Your task to perform on an android device: Open battery settings Image 0: 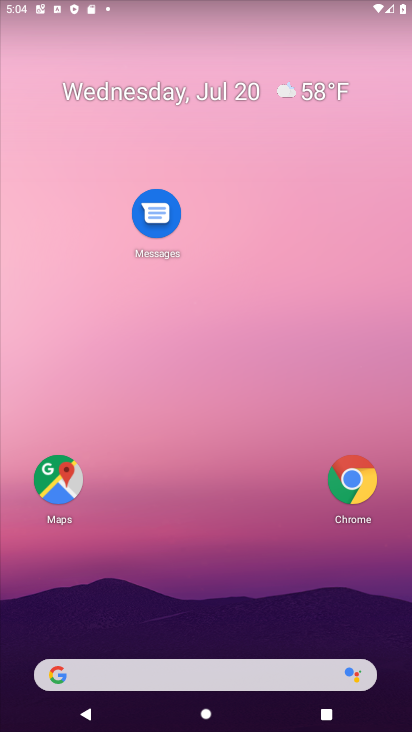
Step 0: drag from (162, 573) to (178, 39)
Your task to perform on an android device: Open battery settings Image 1: 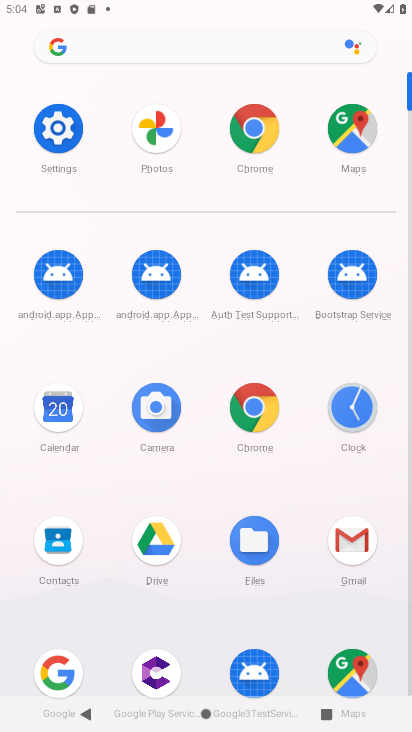
Step 1: click (53, 131)
Your task to perform on an android device: Open battery settings Image 2: 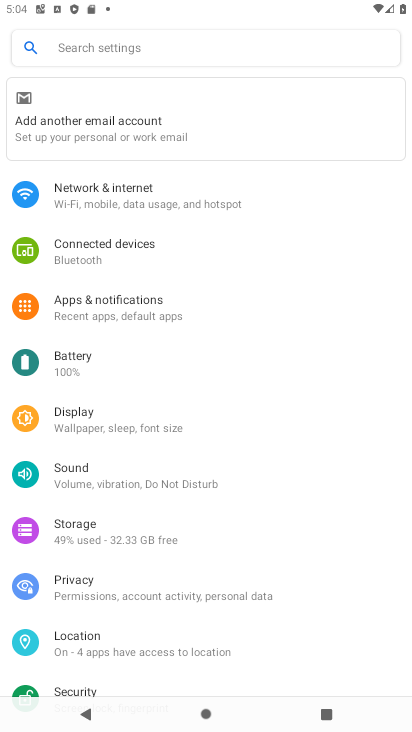
Step 2: click (50, 348)
Your task to perform on an android device: Open battery settings Image 3: 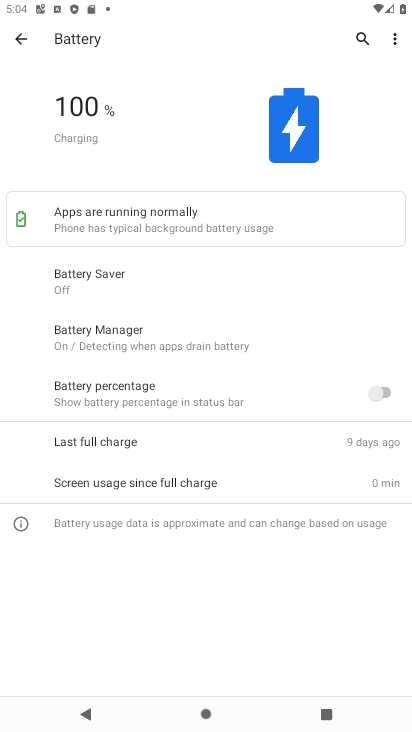
Step 3: task complete